Your task to perform on an android device: Add "lg ultragear" to the cart on target Image 0: 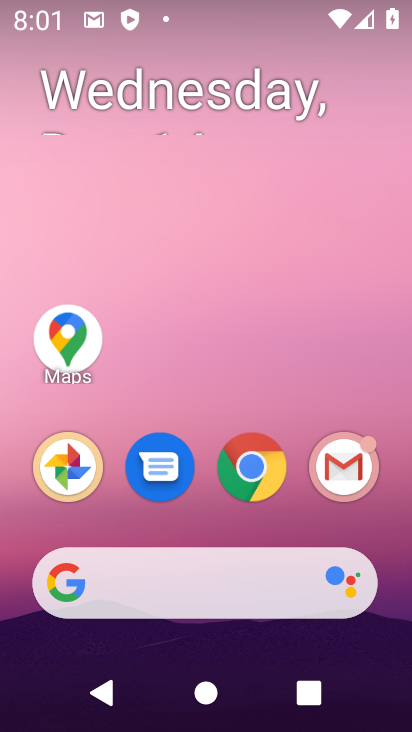
Step 0: click (248, 481)
Your task to perform on an android device: Add "lg ultragear" to the cart on target Image 1: 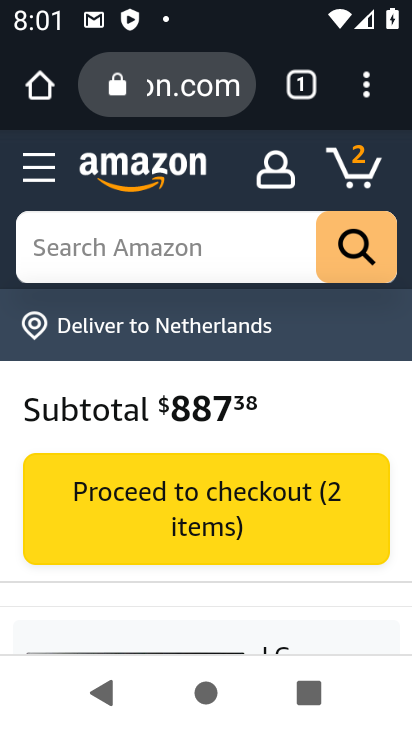
Step 1: click (148, 101)
Your task to perform on an android device: Add "lg ultragear" to the cart on target Image 2: 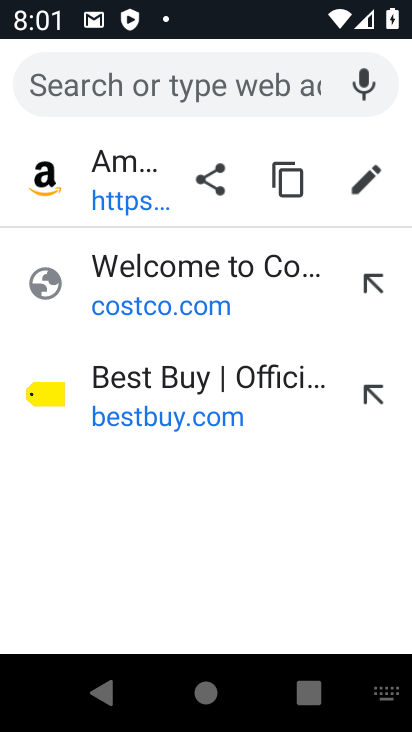
Step 2: type "targget"
Your task to perform on an android device: Add "lg ultragear" to the cart on target Image 3: 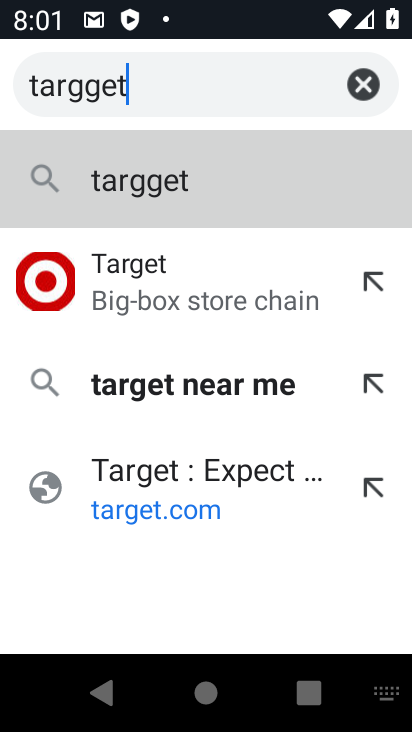
Step 3: click (106, 290)
Your task to perform on an android device: Add "lg ultragear" to the cart on target Image 4: 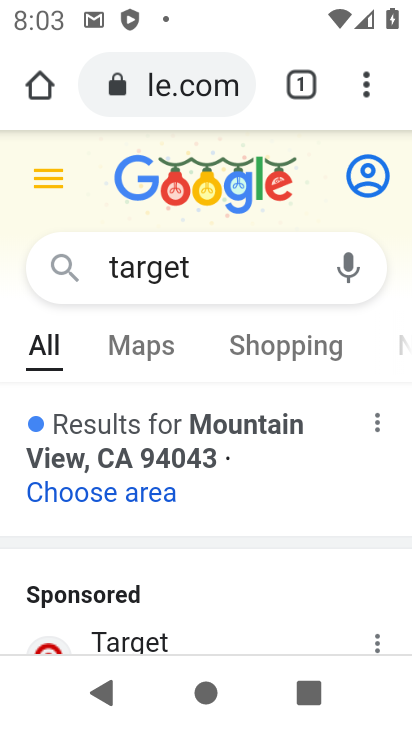
Step 4: task complete